Your task to perform on an android device: check storage Image 0: 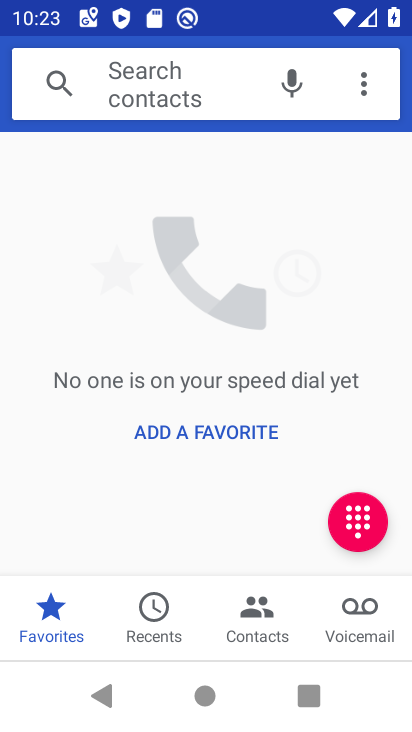
Step 0: press home button
Your task to perform on an android device: check storage Image 1: 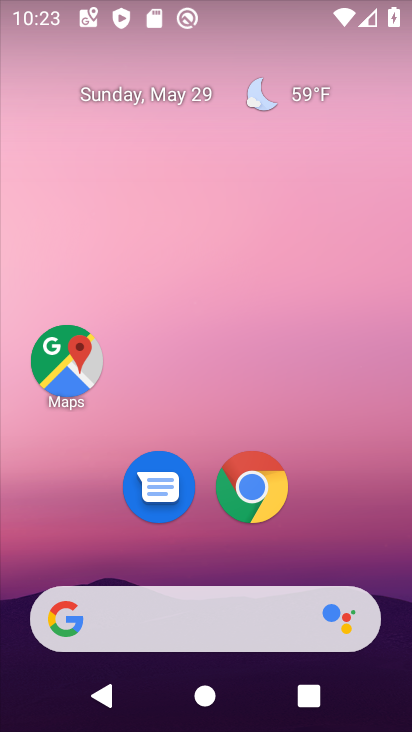
Step 1: drag from (387, 662) to (300, 178)
Your task to perform on an android device: check storage Image 2: 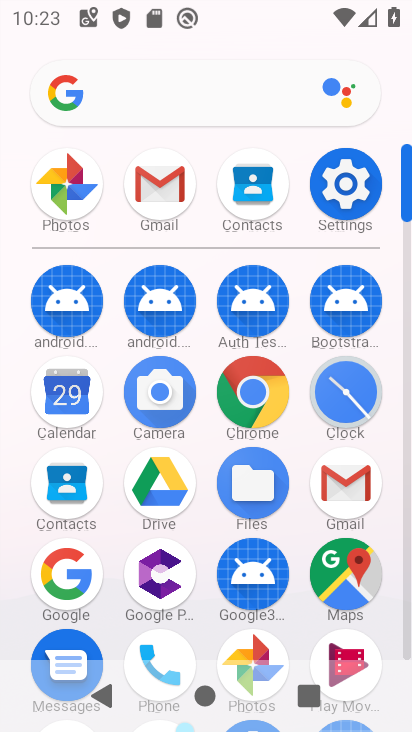
Step 2: click (334, 179)
Your task to perform on an android device: check storage Image 3: 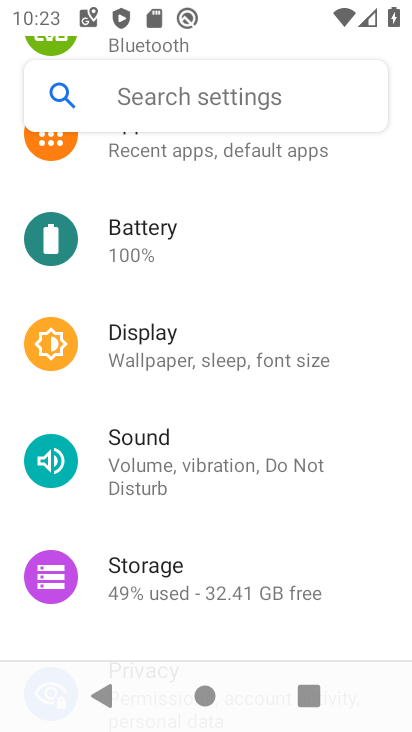
Step 3: click (165, 576)
Your task to perform on an android device: check storage Image 4: 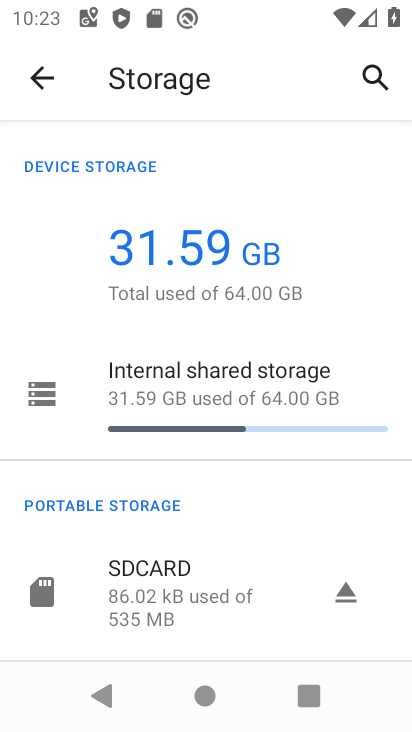
Step 4: task complete